Your task to perform on an android device: Open calendar and show me the fourth week of next month Image 0: 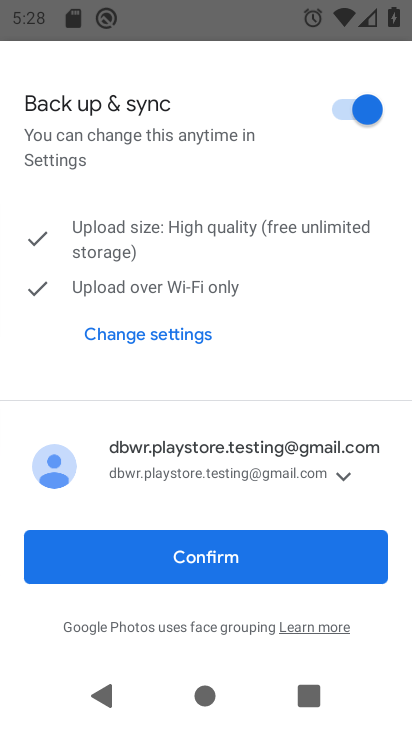
Step 0: press home button
Your task to perform on an android device: Open calendar and show me the fourth week of next month Image 1: 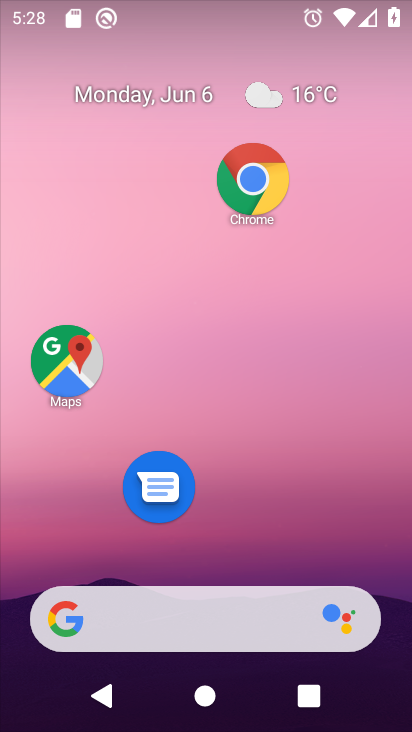
Step 1: drag from (235, 510) to (206, 56)
Your task to perform on an android device: Open calendar and show me the fourth week of next month Image 2: 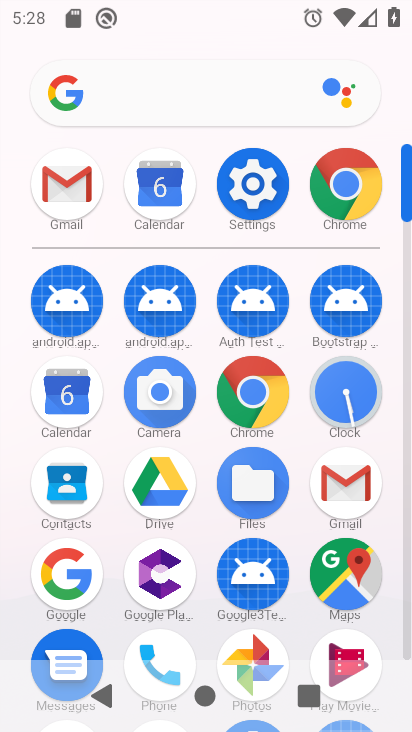
Step 2: click (157, 189)
Your task to perform on an android device: Open calendar and show me the fourth week of next month Image 3: 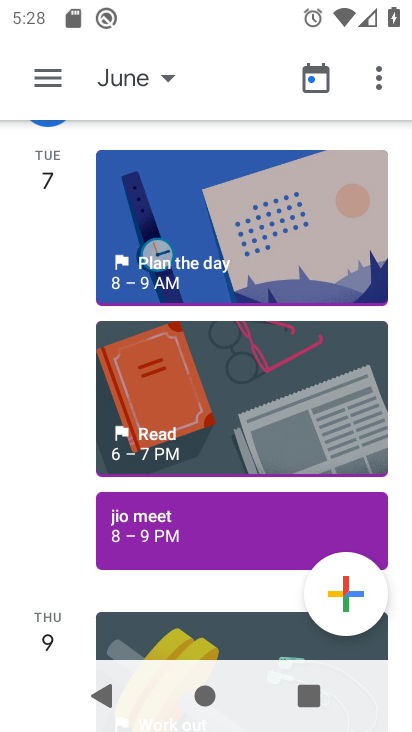
Step 3: click (42, 67)
Your task to perform on an android device: Open calendar and show me the fourth week of next month Image 4: 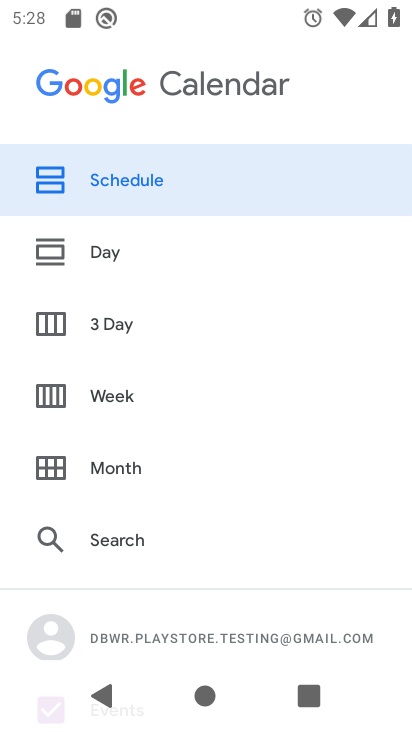
Step 4: click (44, 461)
Your task to perform on an android device: Open calendar and show me the fourth week of next month Image 5: 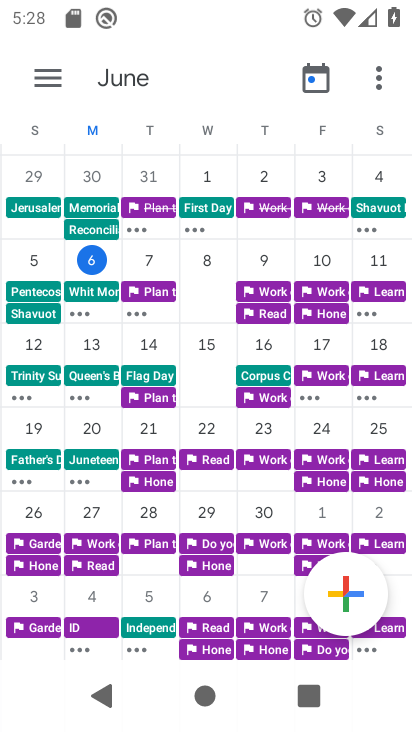
Step 5: drag from (381, 426) to (25, 407)
Your task to perform on an android device: Open calendar and show me the fourth week of next month Image 6: 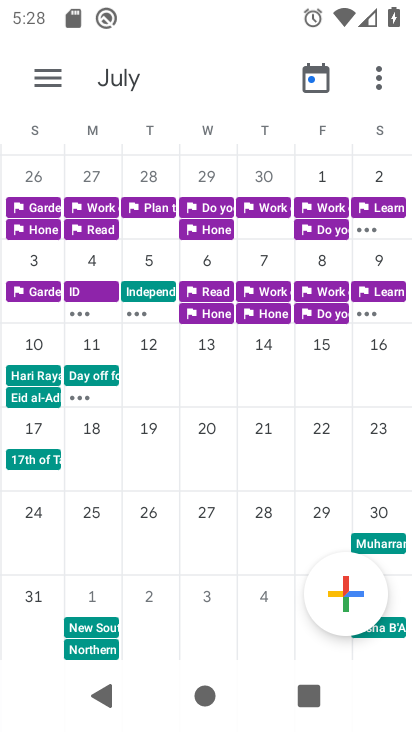
Step 6: click (33, 515)
Your task to perform on an android device: Open calendar and show me the fourth week of next month Image 7: 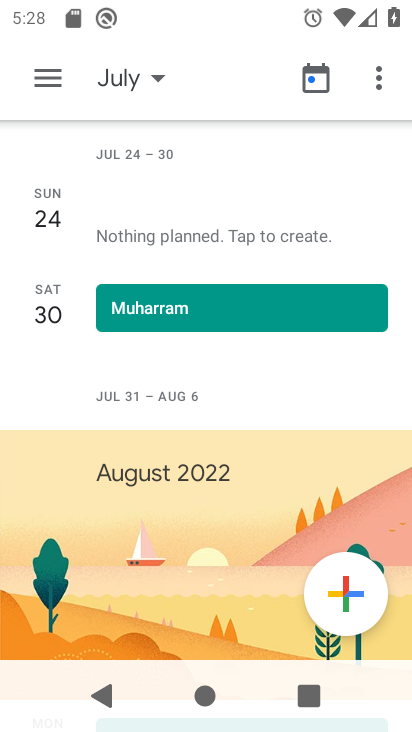
Step 7: click (42, 85)
Your task to perform on an android device: Open calendar and show me the fourth week of next month Image 8: 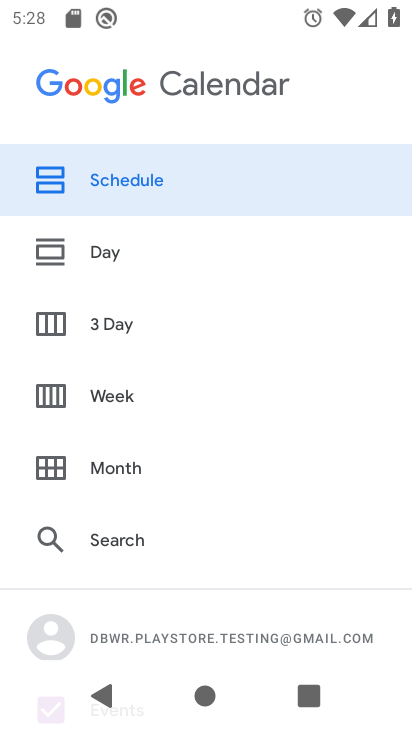
Step 8: click (49, 403)
Your task to perform on an android device: Open calendar and show me the fourth week of next month Image 9: 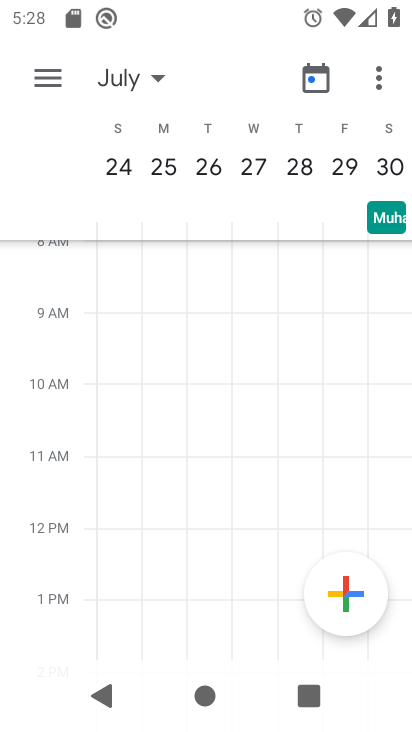
Step 9: task complete